Your task to perform on an android device: Go to Amazon Image 0: 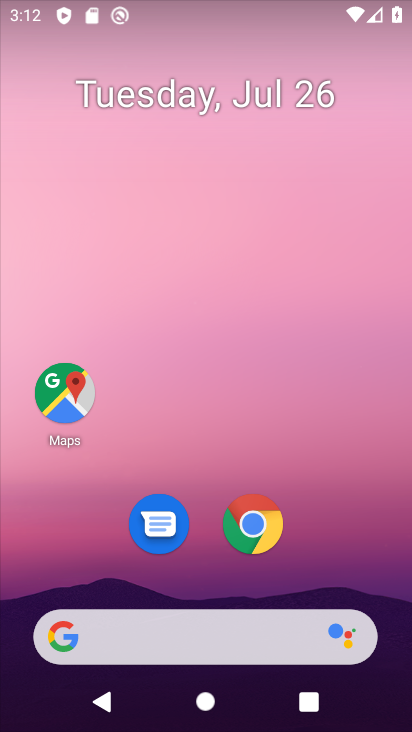
Step 0: click (263, 514)
Your task to perform on an android device: Go to Amazon Image 1: 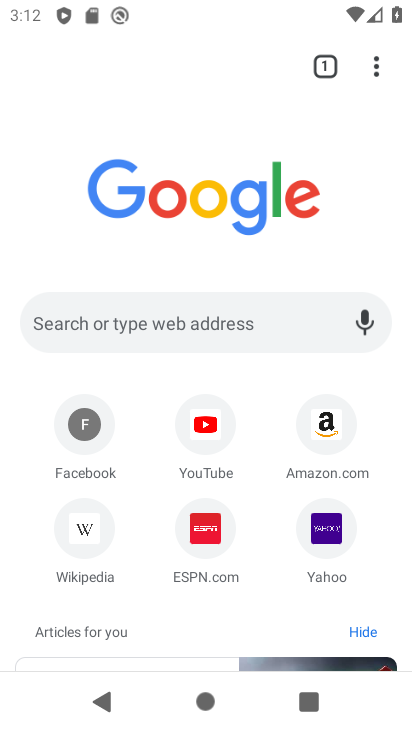
Step 1: click (327, 429)
Your task to perform on an android device: Go to Amazon Image 2: 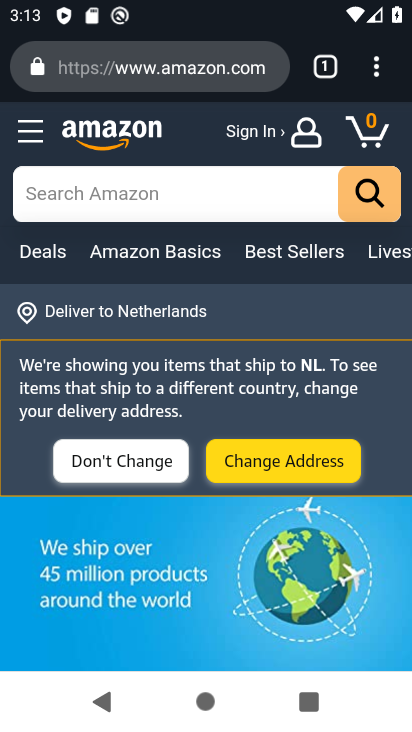
Step 2: task complete